Your task to perform on an android device: Go to internet settings Image 0: 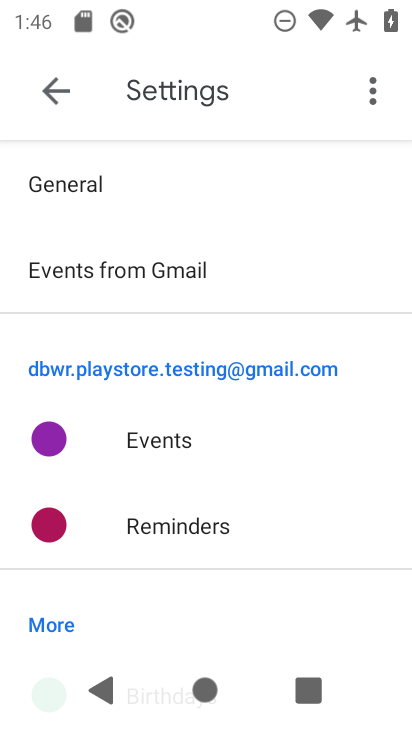
Step 0: press home button
Your task to perform on an android device: Go to internet settings Image 1: 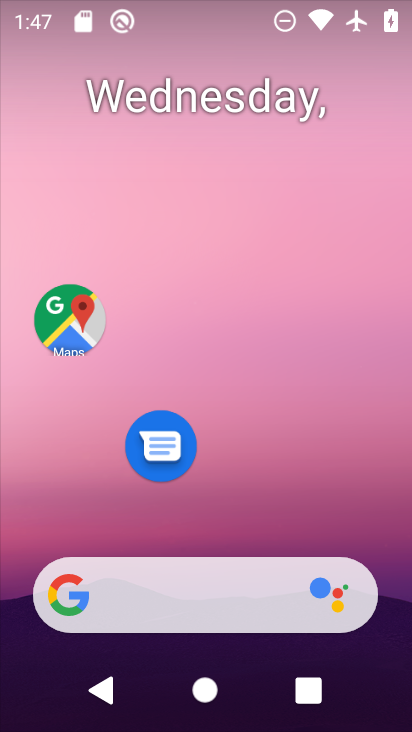
Step 1: drag from (307, 475) to (215, 5)
Your task to perform on an android device: Go to internet settings Image 2: 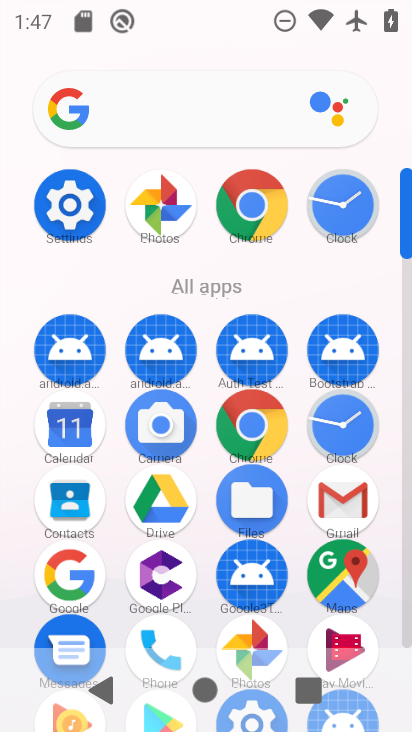
Step 2: click (74, 208)
Your task to perform on an android device: Go to internet settings Image 3: 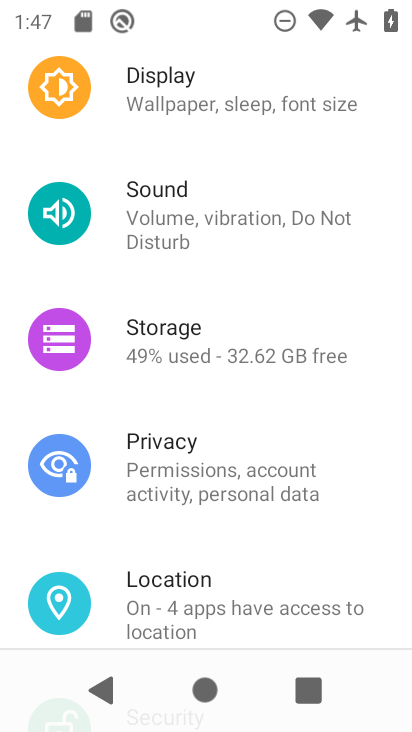
Step 3: drag from (112, 223) to (147, 717)
Your task to perform on an android device: Go to internet settings Image 4: 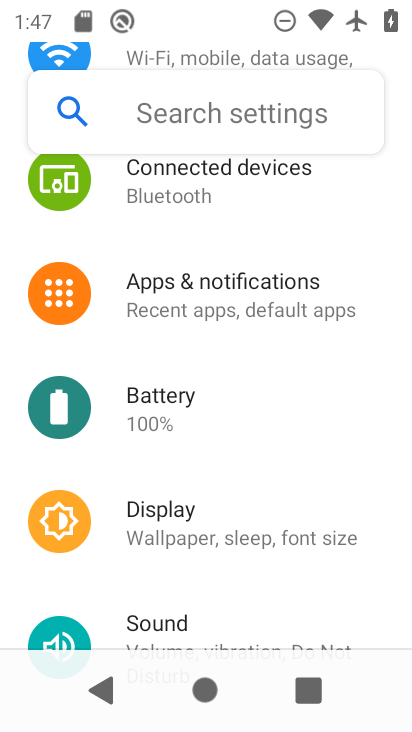
Step 4: drag from (260, 190) to (277, 689)
Your task to perform on an android device: Go to internet settings Image 5: 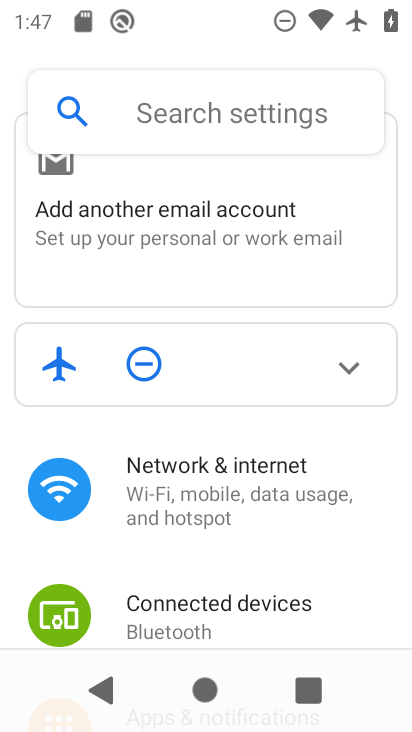
Step 5: click (224, 464)
Your task to perform on an android device: Go to internet settings Image 6: 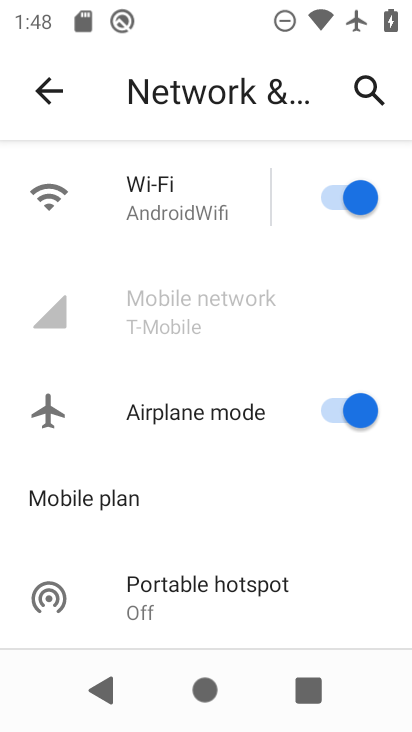
Step 6: task complete